Your task to perform on an android device: check the backup settings in the google photos Image 0: 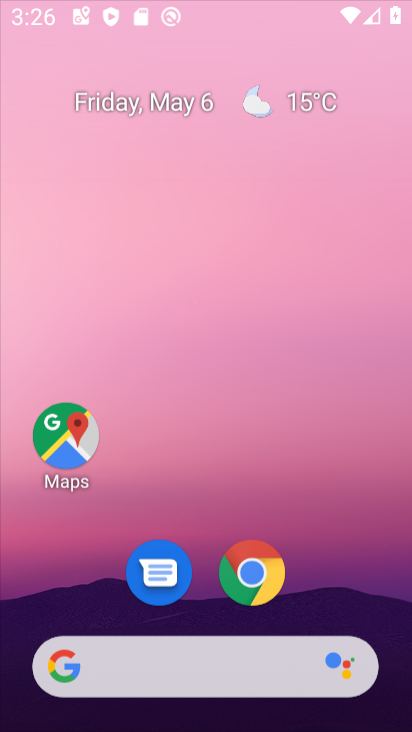
Step 0: drag from (307, 30) to (272, 6)
Your task to perform on an android device: check the backup settings in the google photos Image 1: 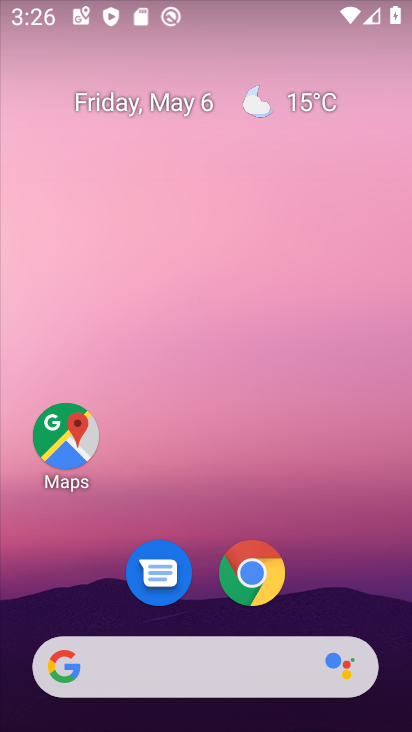
Step 1: drag from (197, 607) to (251, 290)
Your task to perform on an android device: check the backup settings in the google photos Image 2: 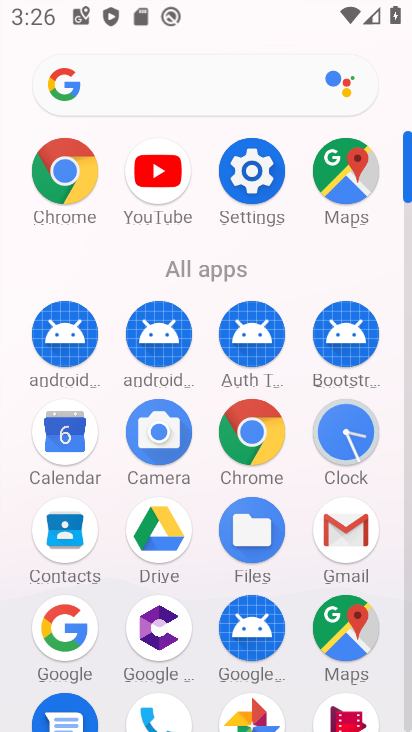
Step 2: click (260, 706)
Your task to perform on an android device: check the backup settings in the google photos Image 3: 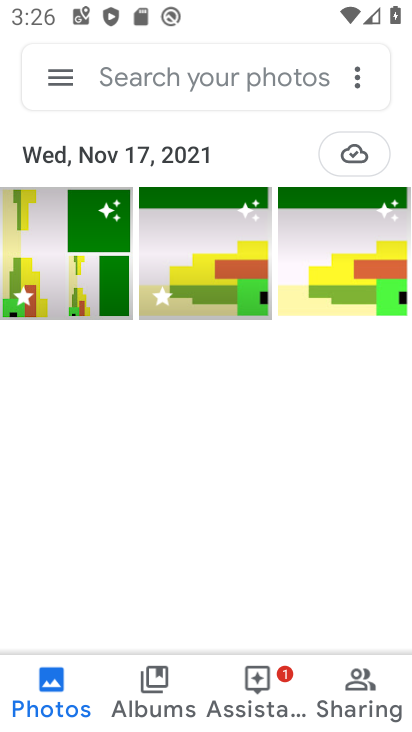
Step 3: drag from (219, 630) to (338, 283)
Your task to perform on an android device: check the backup settings in the google photos Image 4: 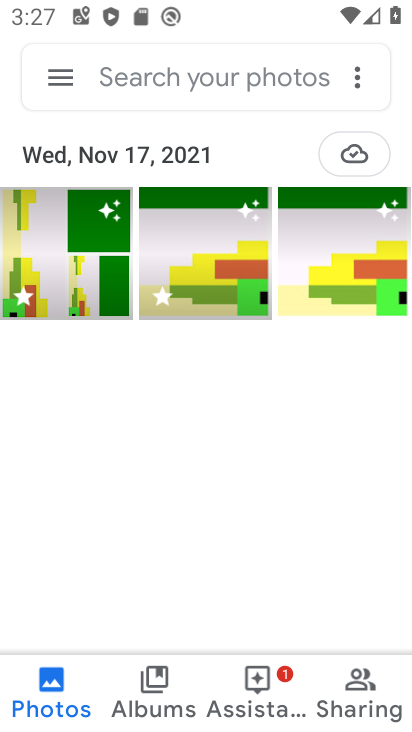
Step 4: click (73, 72)
Your task to perform on an android device: check the backup settings in the google photos Image 5: 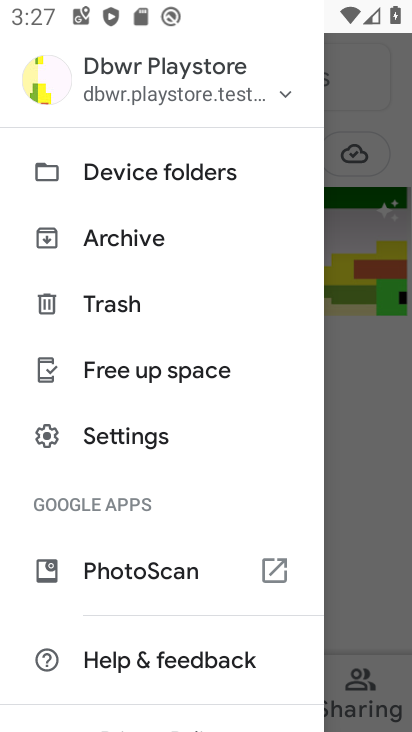
Step 5: click (156, 423)
Your task to perform on an android device: check the backup settings in the google photos Image 6: 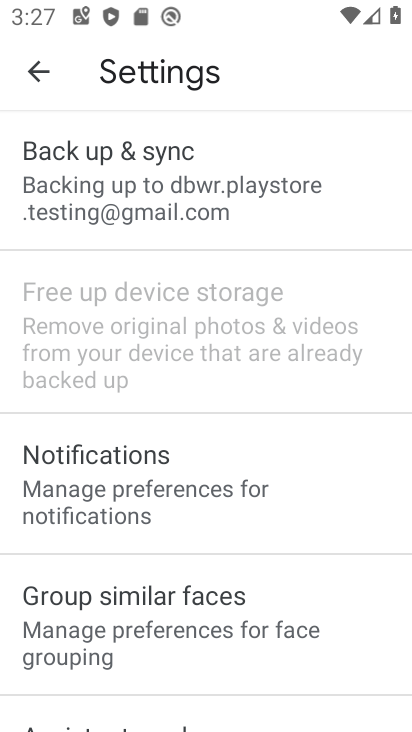
Step 6: click (173, 193)
Your task to perform on an android device: check the backup settings in the google photos Image 7: 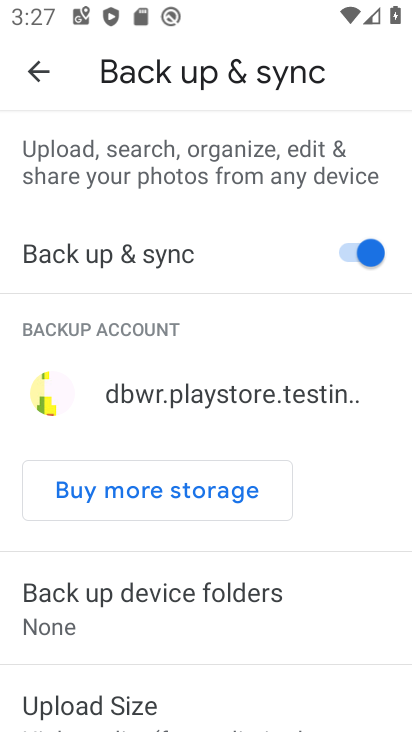
Step 7: task complete